Your task to perform on an android device: Show the shopping cart on walmart. Search for razer thresher on walmart, select the first entry, and add it to the cart. Image 0: 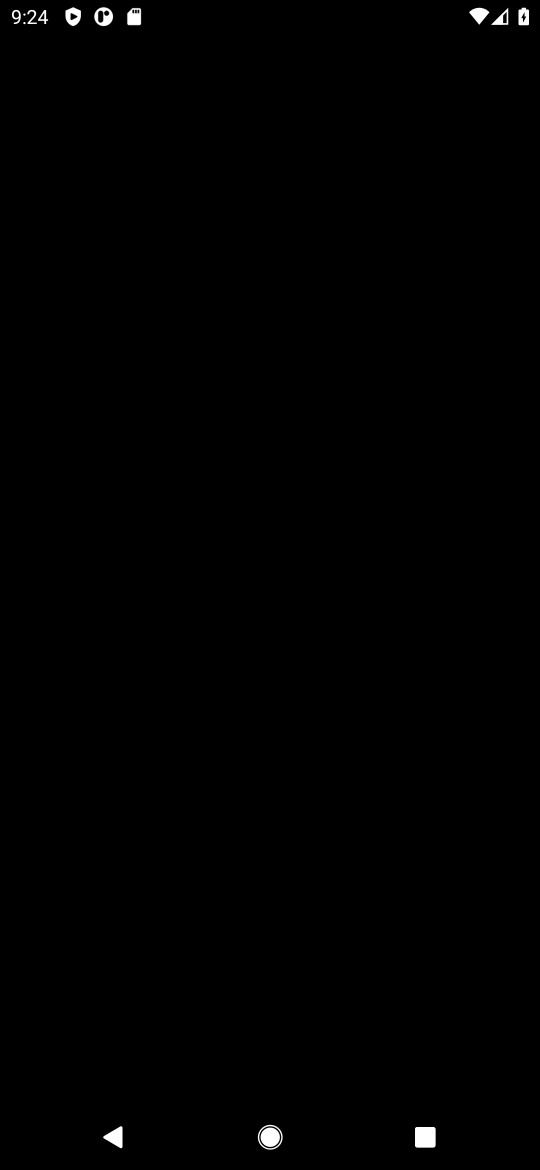
Step 0: press home button
Your task to perform on an android device: Show the shopping cart on walmart. Search for razer thresher on walmart, select the first entry, and add it to the cart. Image 1: 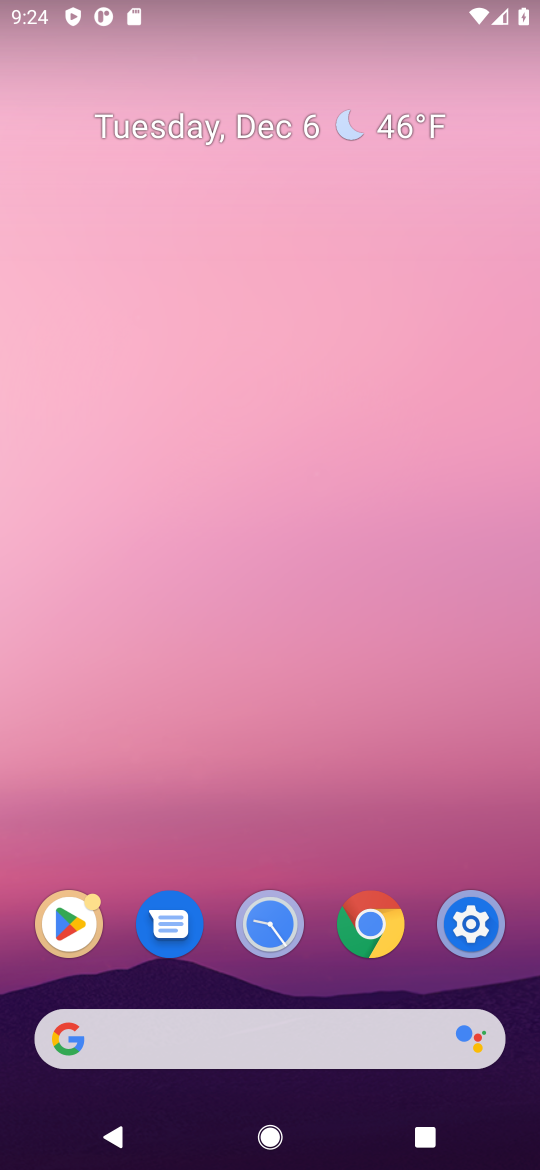
Step 1: click (254, 1023)
Your task to perform on an android device: Show the shopping cart on walmart. Search for razer thresher on walmart, select the first entry, and add it to the cart. Image 2: 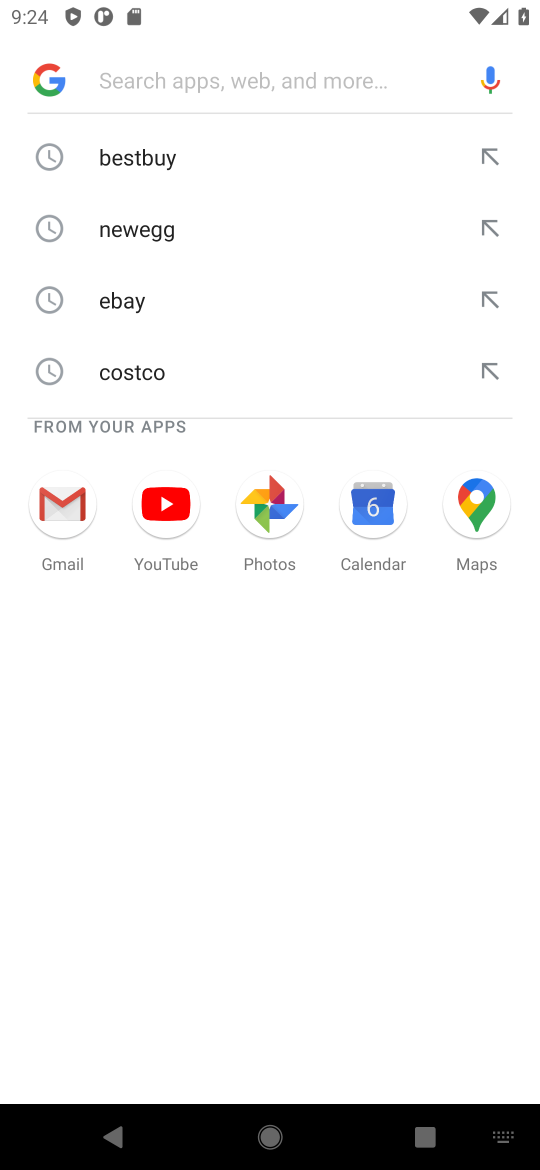
Step 2: type "walmart"
Your task to perform on an android device: Show the shopping cart on walmart. Search for razer thresher on walmart, select the first entry, and add it to the cart. Image 3: 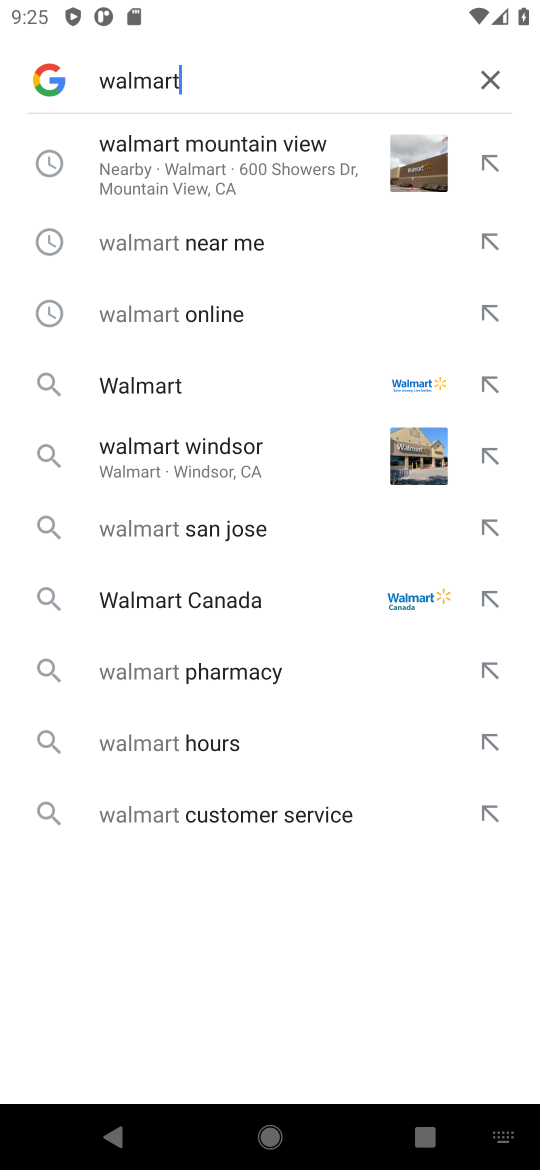
Step 3: click (196, 152)
Your task to perform on an android device: Show the shopping cart on walmart. Search for razer thresher on walmart, select the first entry, and add it to the cart. Image 4: 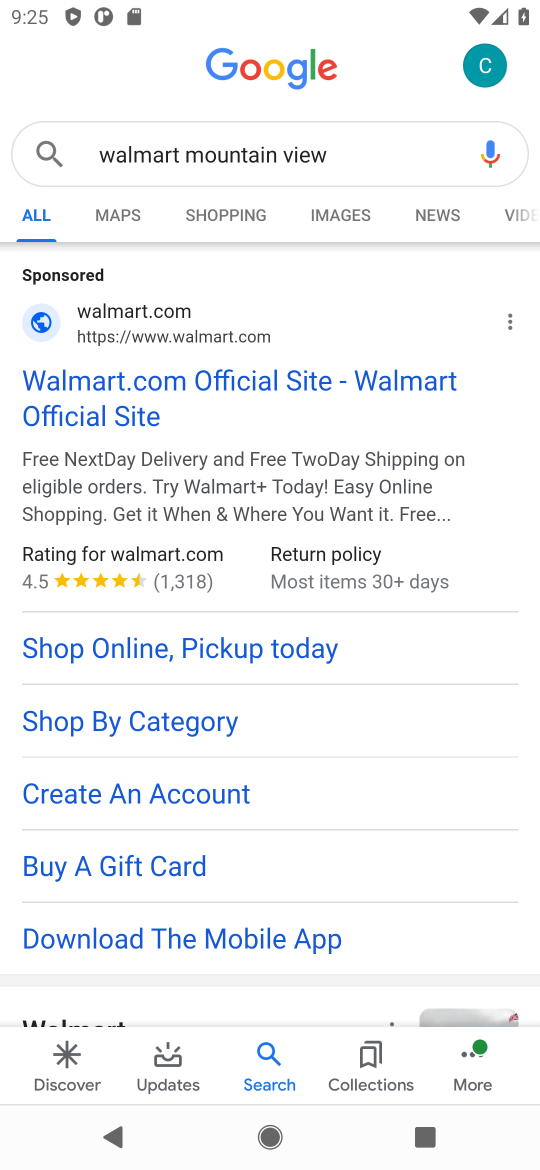
Step 4: click (242, 368)
Your task to perform on an android device: Show the shopping cart on walmart. Search for razer thresher on walmart, select the first entry, and add it to the cart. Image 5: 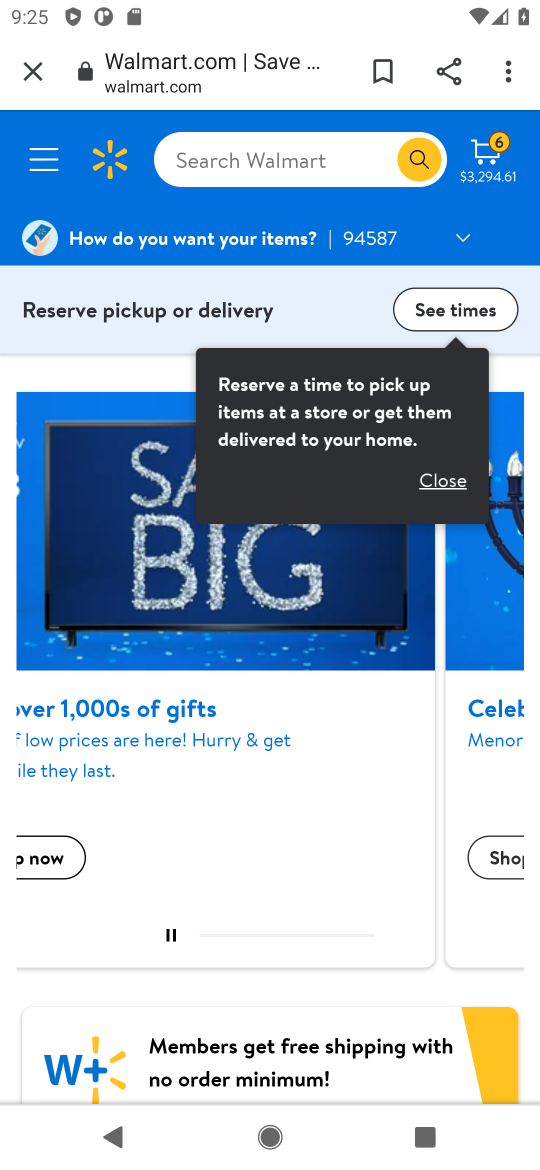
Step 5: click (185, 166)
Your task to perform on an android device: Show the shopping cart on walmart. Search for razer thresher on walmart, select the first entry, and add it to the cart. Image 6: 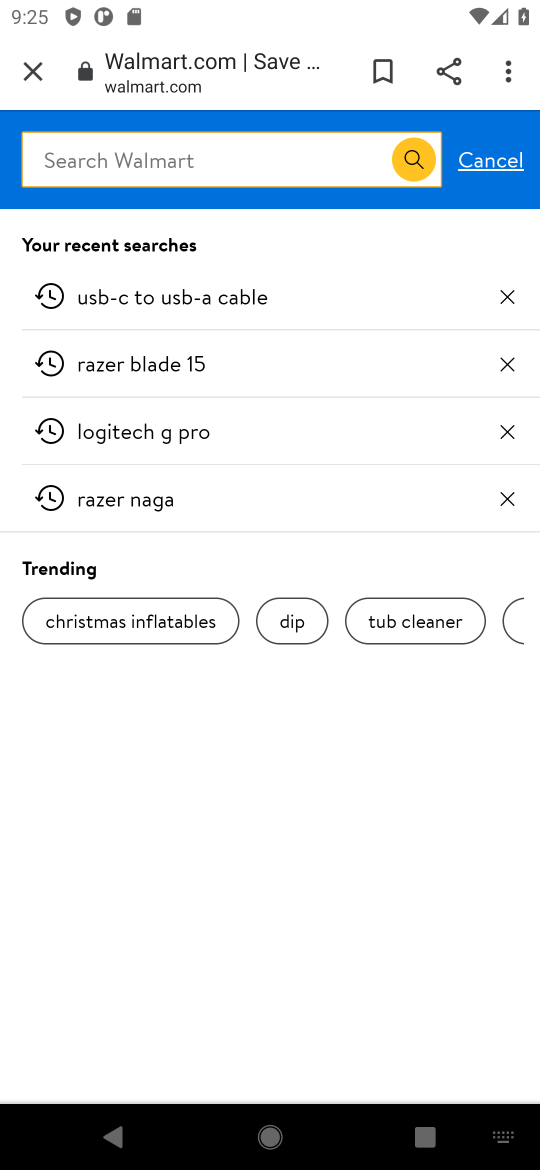
Step 6: type "razer threher"
Your task to perform on an android device: Show the shopping cart on walmart. Search for razer thresher on walmart, select the first entry, and add it to the cart. Image 7: 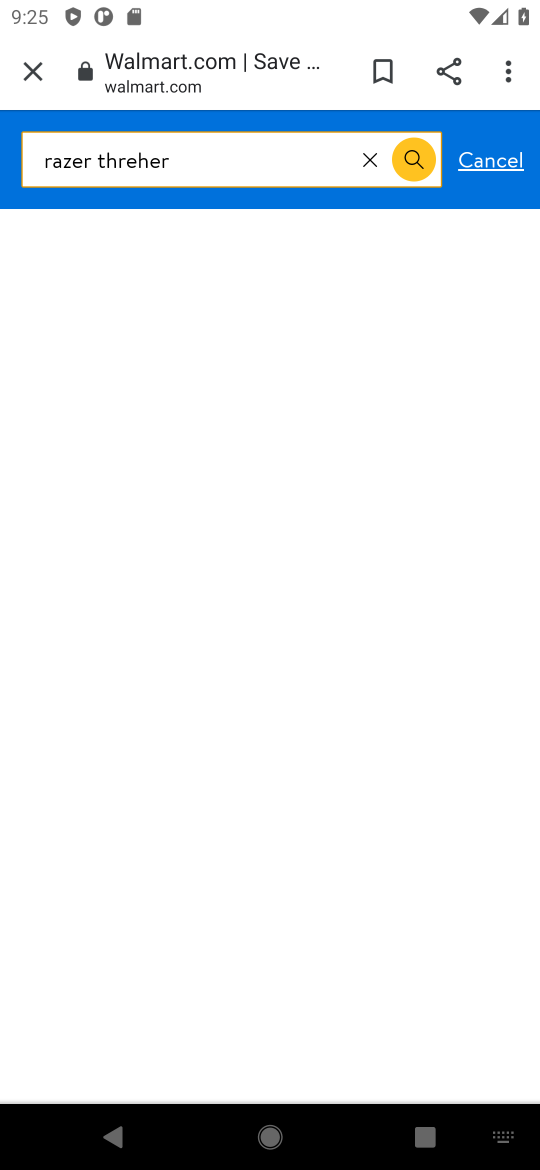
Step 7: click (413, 165)
Your task to perform on an android device: Show the shopping cart on walmart. Search for razer thresher on walmart, select the first entry, and add it to the cart. Image 8: 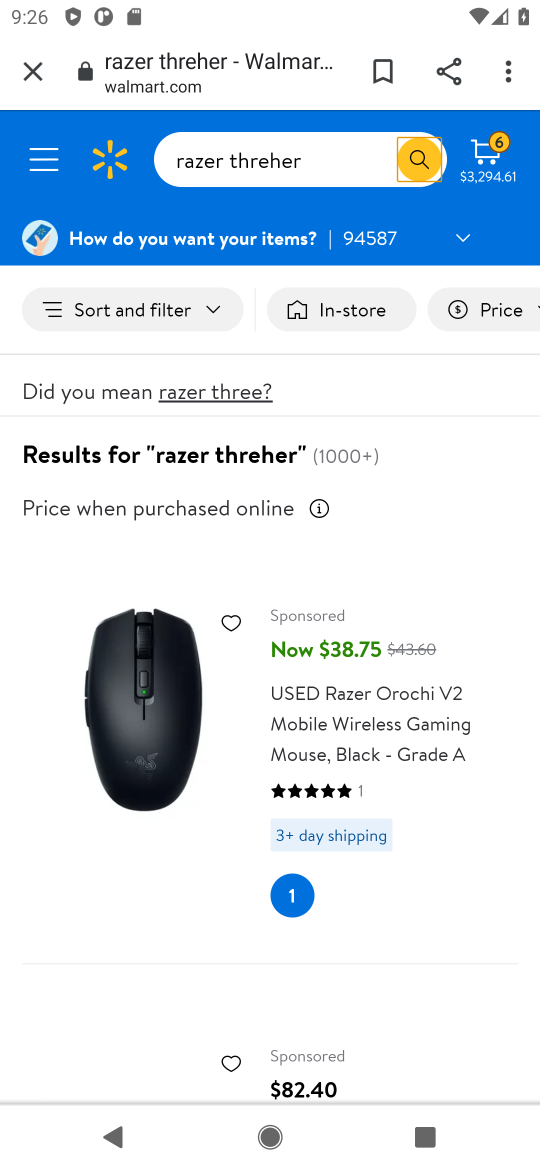
Step 8: drag from (425, 980) to (398, 617)
Your task to perform on an android device: Show the shopping cart on walmart. Search for razer thresher on walmart, select the first entry, and add it to the cart. Image 9: 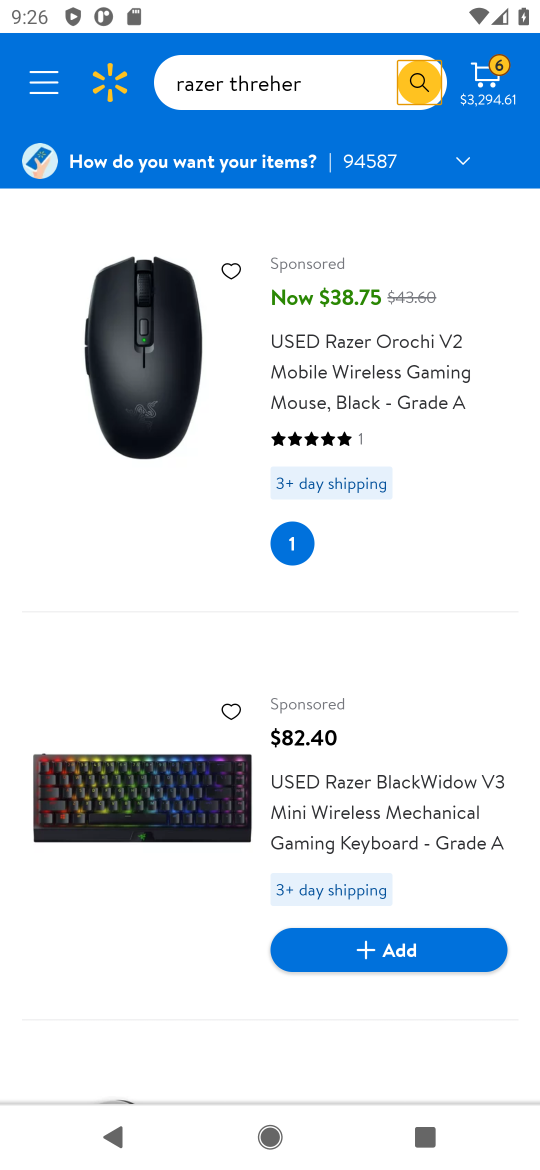
Step 9: click (360, 403)
Your task to perform on an android device: Show the shopping cart on walmart. Search for razer thresher on walmart, select the first entry, and add it to the cart. Image 10: 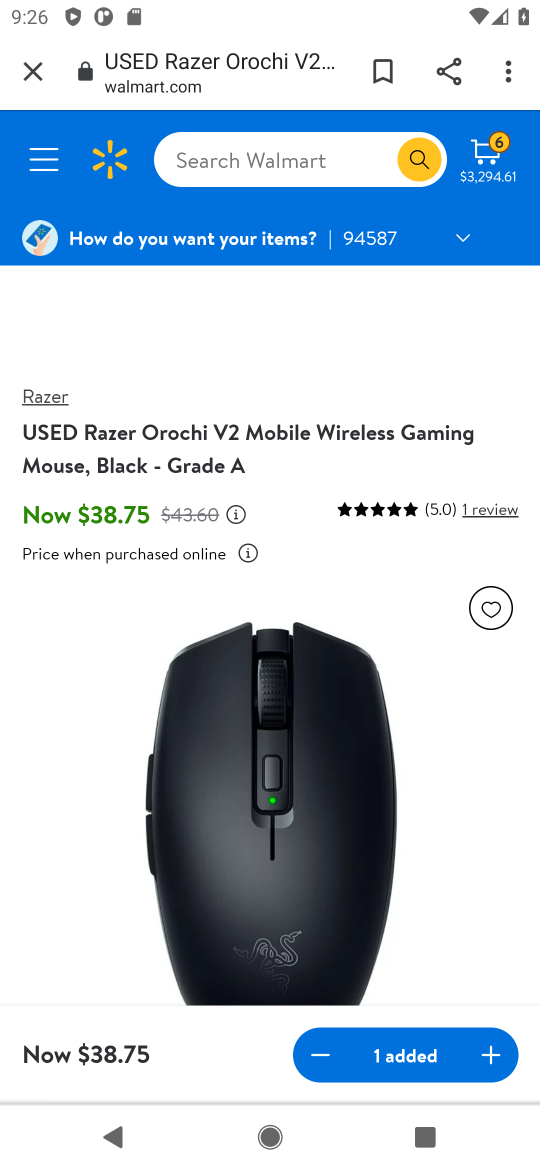
Step 10: task complete